Your task to perform on an android device: uninstall "DoorDash - Food Delivery" Image 0: 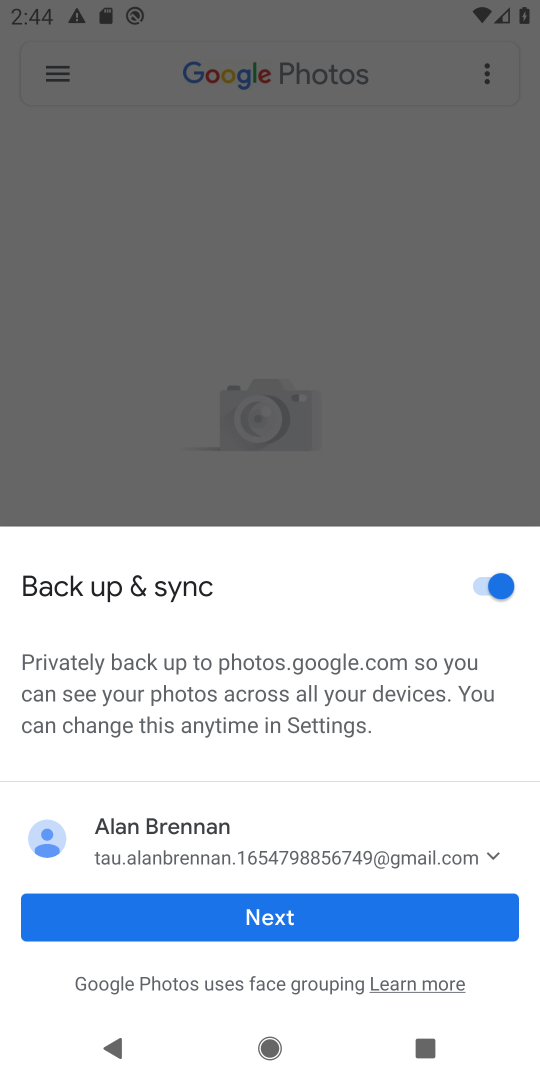
Step 0: press home button
Your task to perform on an android device: uninstall "DoorDash - Food Delivery" Image 1: 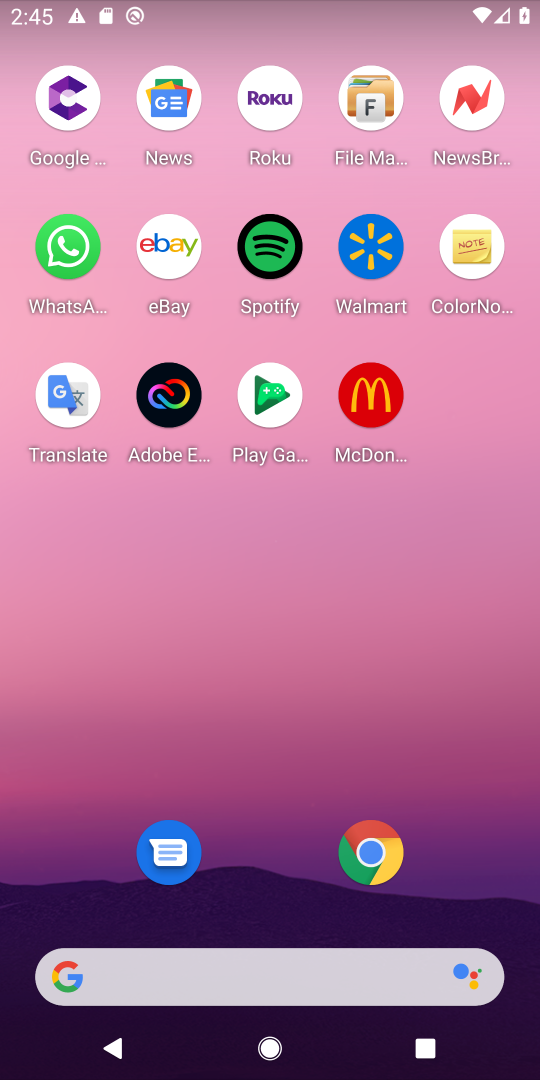
Step 1: drag from (295, 606) to (293, 210)
Your task to perform on an android device: uninstall "DoorDash - Food Delivery" Image 2: 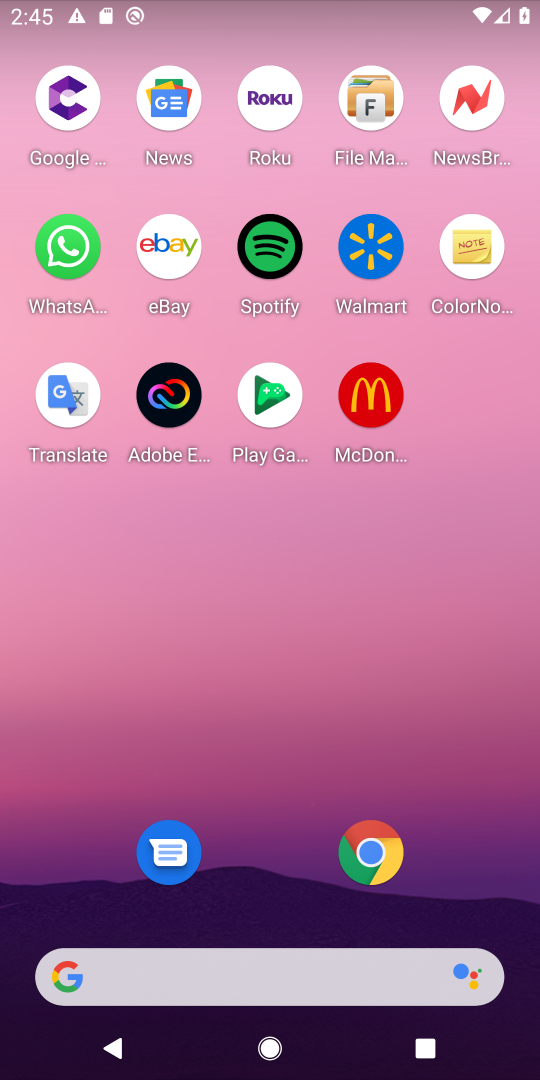
Step 2: drag from (264, 846) to (244, 6)
Your task to perform on an android device: uninstall "DoorDash - Food Delivery" Image 3: 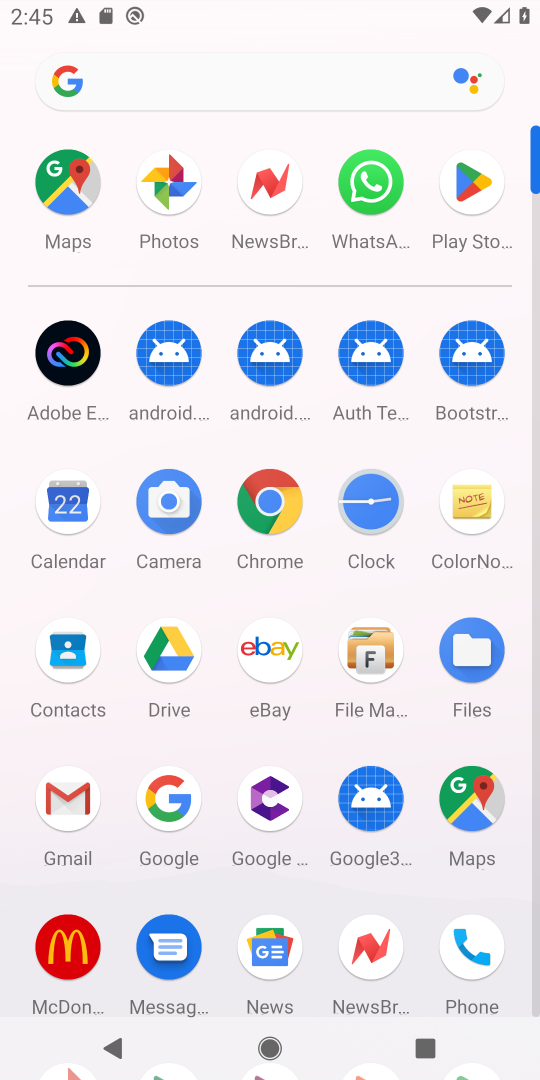
Step 3: click (471, 178)
Your task to perform on an android device: uninstall "DoorDash - Food Delivery" Image 4: 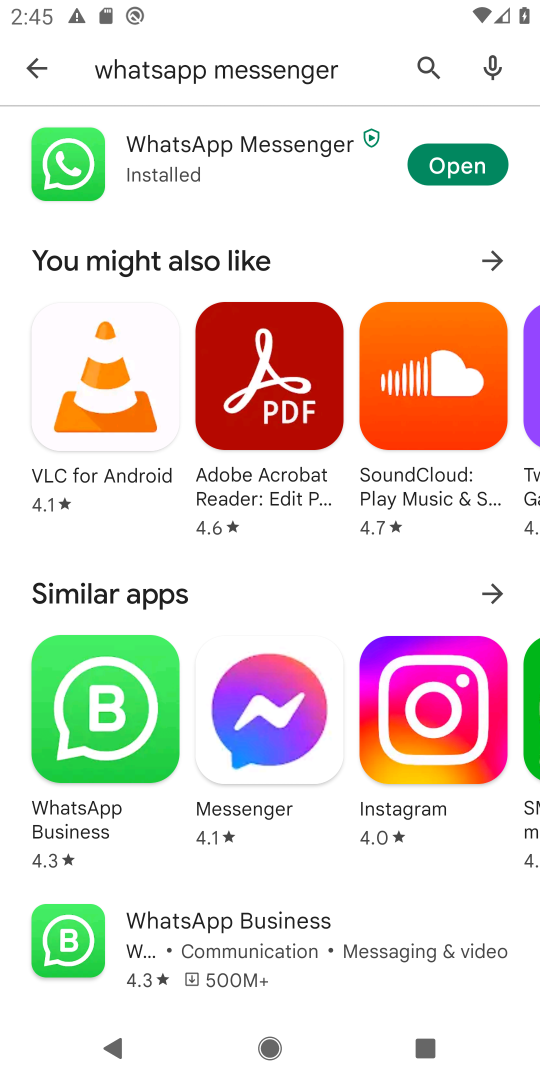
Step 4: click (431, 56)
Your task to perform on an android device: uninstall "DoorDash - Food Delivery" Image 5: 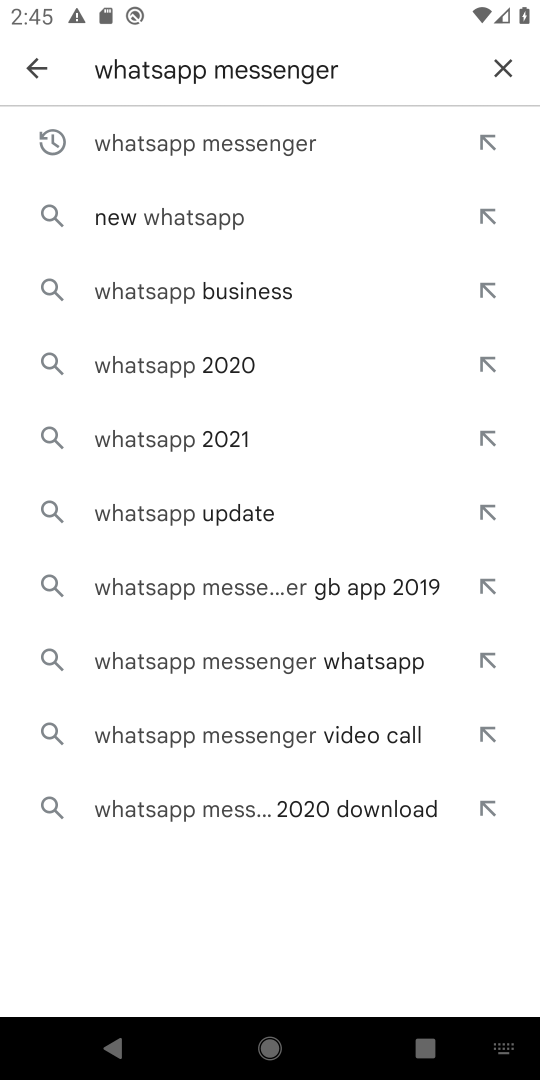
Step 5: click (496, 66)
Your task to perform on an android device: uninstall "DoorDash - Food Delivery" Image 6: 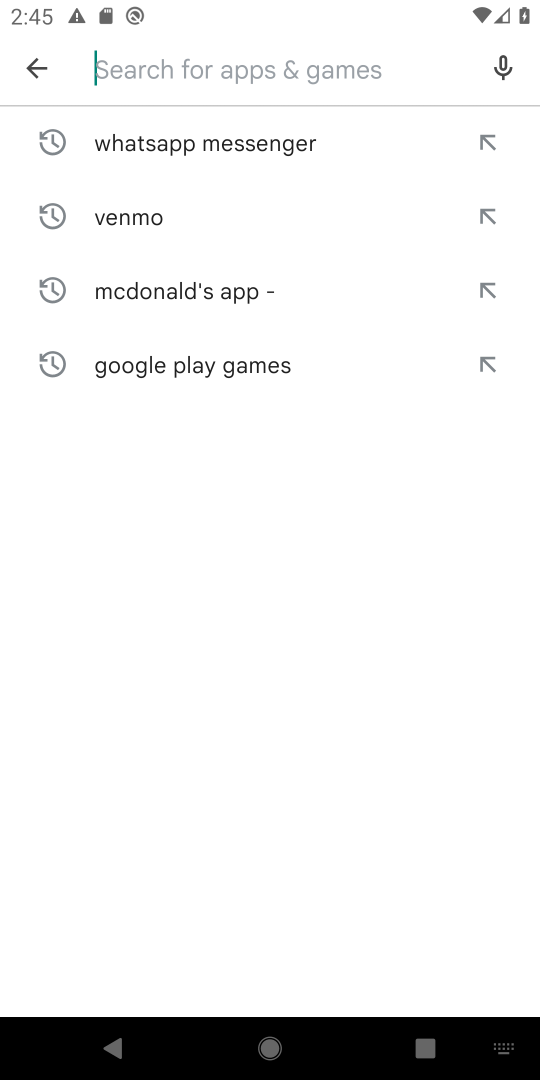
Step 6: type "DoorDash - Food Delivery"
Your task to perform on an android device: uninstall "DoorDash - Food Delivery" Image 7: 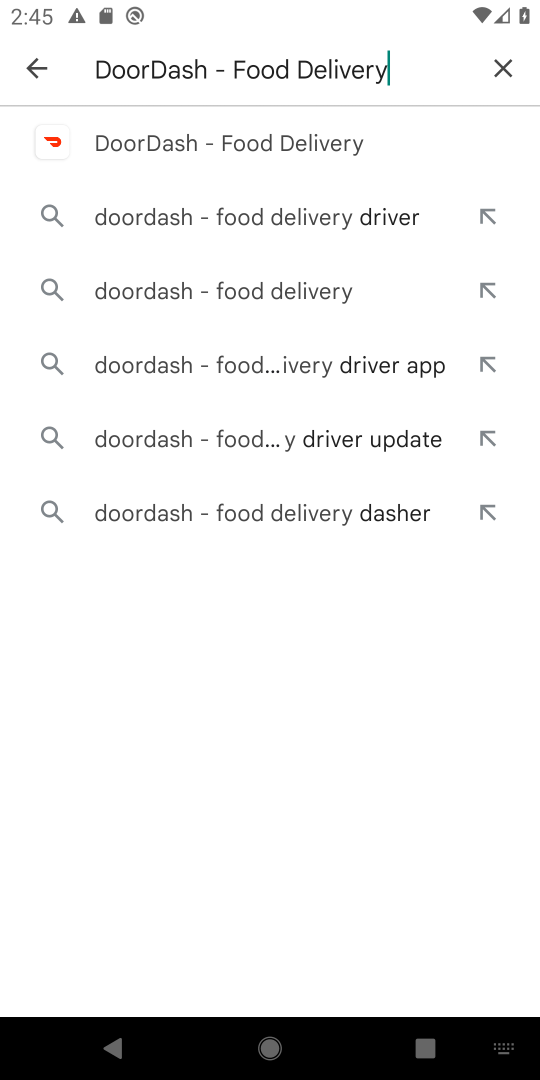
Step 7: click (279, 139)
Your task to perform on an android device: uninstall "DoorDash - Food Delivery" Image 8: 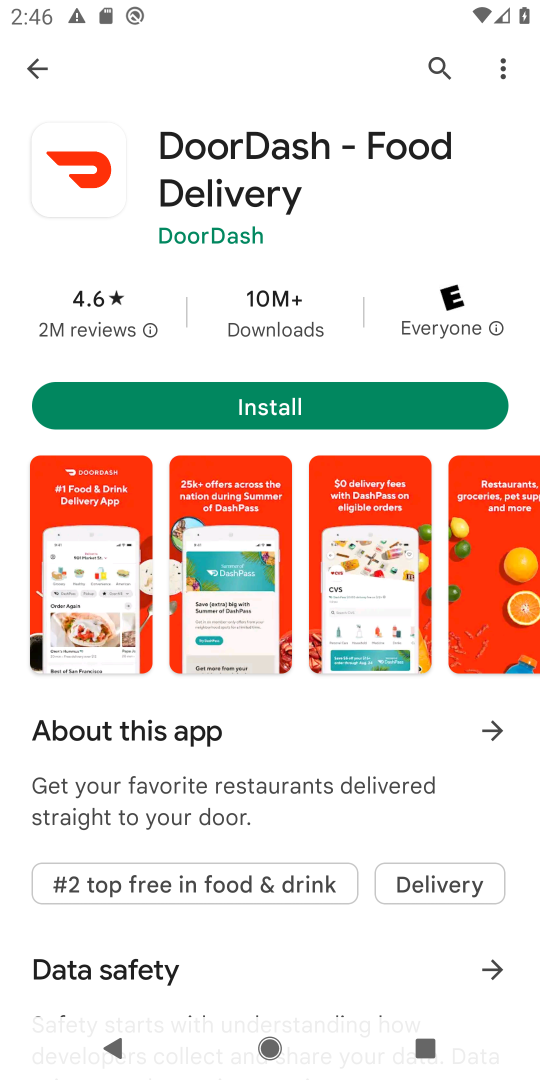
Step 8: task complete